Your task to perform on an android device: Open the Play Movies app and select the watchlist tab. Image 0: 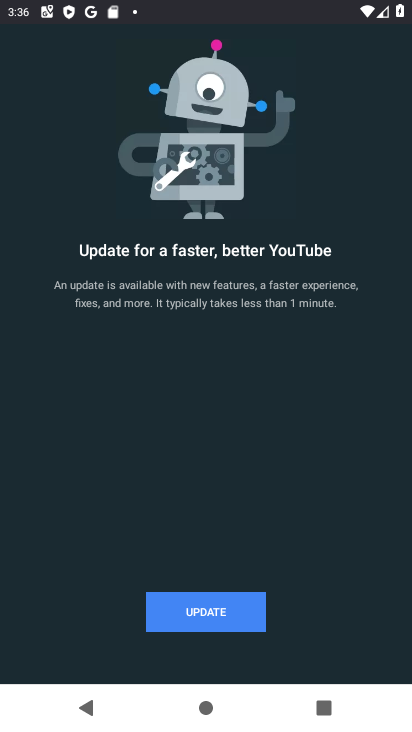
Step 0: press home button
Your task to perform on an android device: Open the Play Movies app and select the watchlist tab. Image 1: 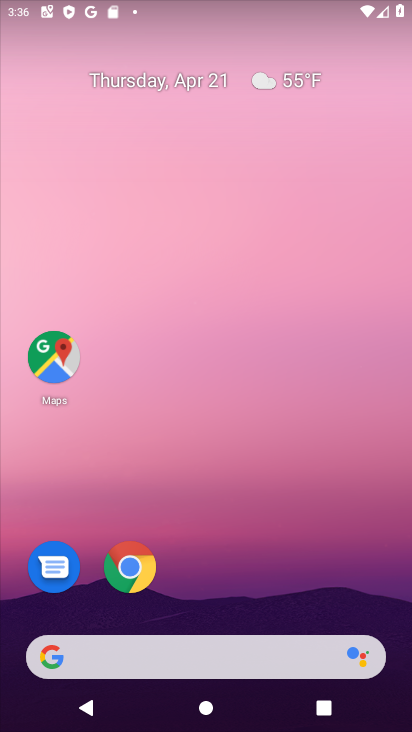
Step 1: drag from (234, 546) to (231, 226)
Your task to perform on an android device: Open the Play Movies app and select the watchlist tab. Image 2: 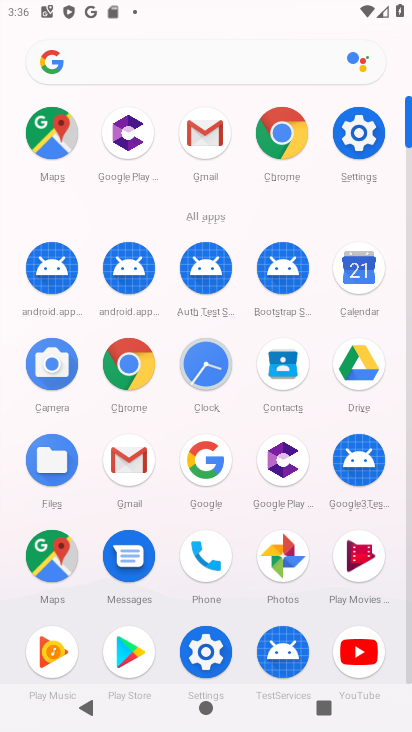
Step 2: click (363, 557)
Your task to perform on an android device: Open the Play Movies app and select the watchlist tab. Image 3: 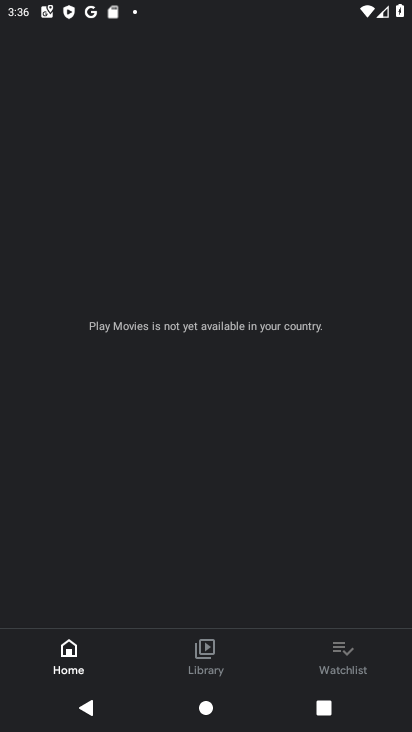
Step 3: click (329, 636)
Your task to perform on an android device: Open the Play Movies app and select the watchlist tab. Image 4: 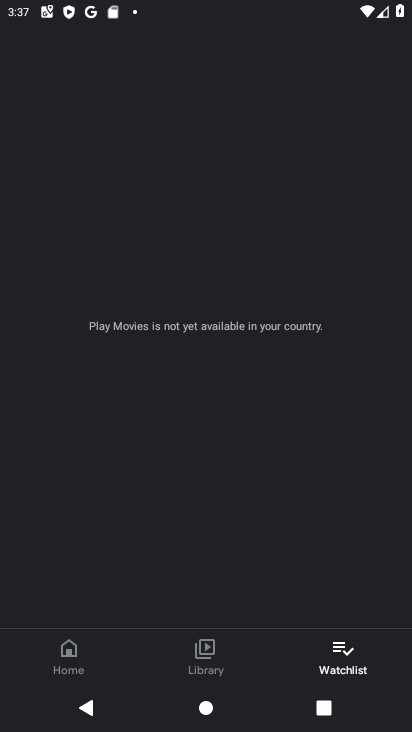
Step 4: task complete